Your task to perform on an android device: Go to sound settings Image 0: 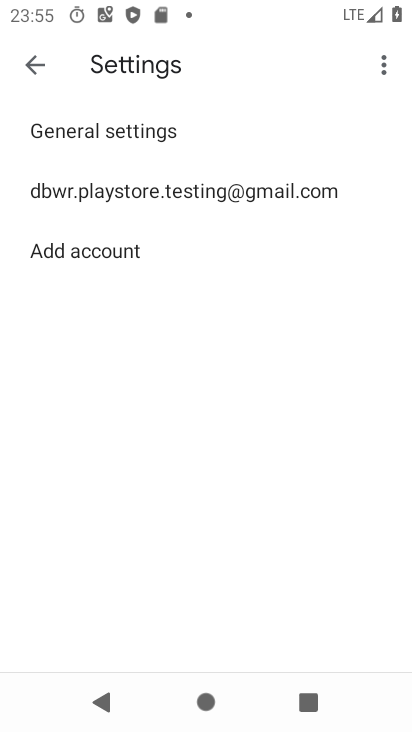
Step 0: press home button
Your task to perform on an android device: Go to sound settings Image 1: 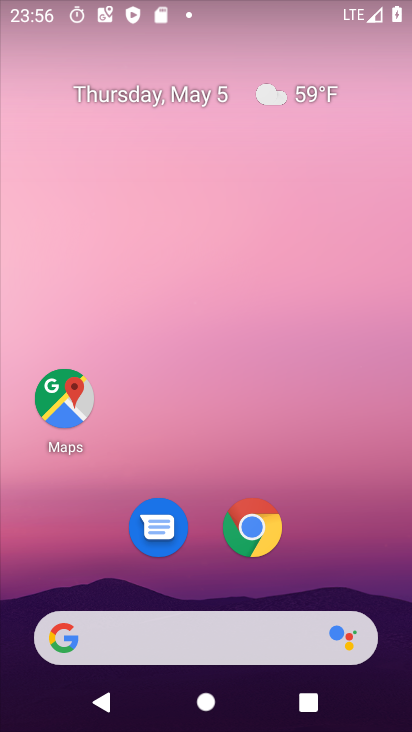
Step 1: drag from (225, 591) to (214, 0)
Your task to perform on an android device: Go to sound settings Image 2: 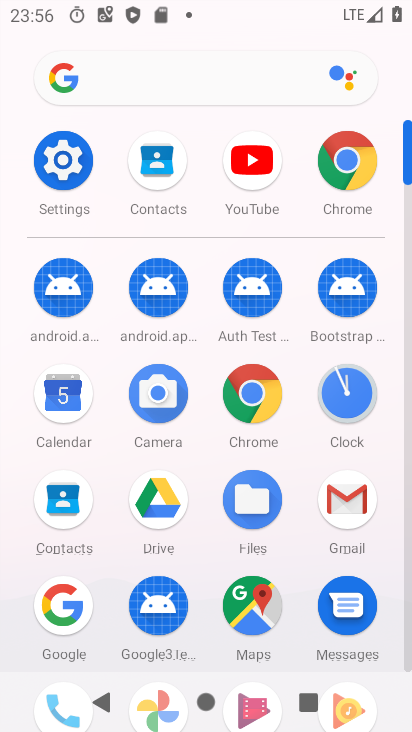
Step 2: click (66, 211)
Your task to perform on an android device: Go to sound settings Image 3: 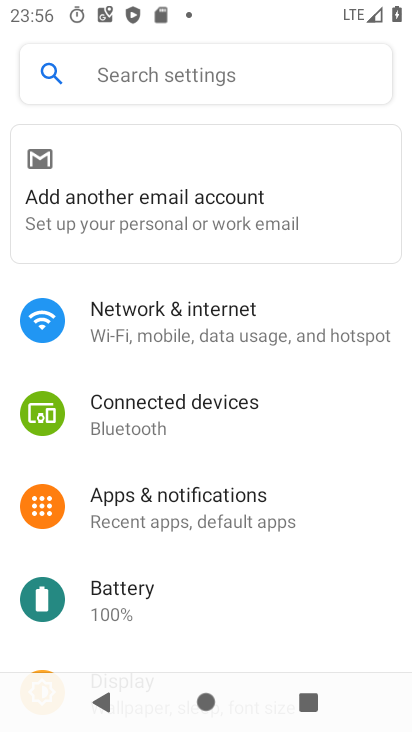
Step 3: drag from (204, 369) to (243, 216)
Your task to perform on an android device: Go to sound settings Image 4: 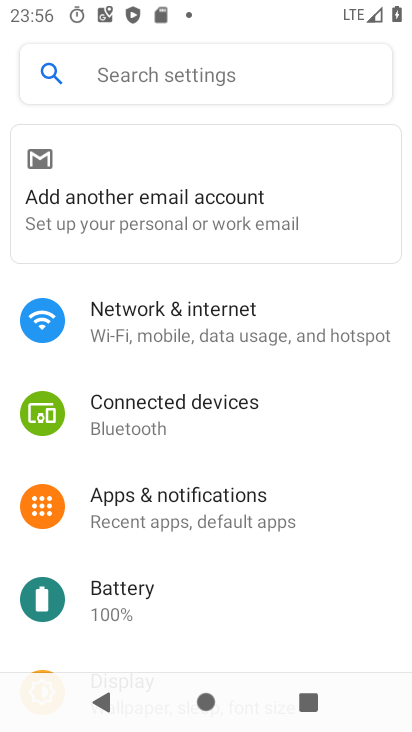
Step 4: drag from (186, 273) to (198, 201)
Your task to perform on an android device: Go to sound settings Image 5: 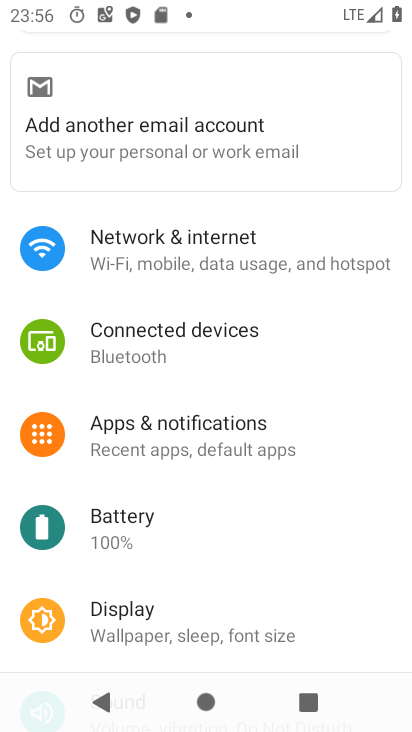
Step 5: drag from (130, 570) to (175, 253)
Your task to perform on an android device: Go to sound settings Image 6: 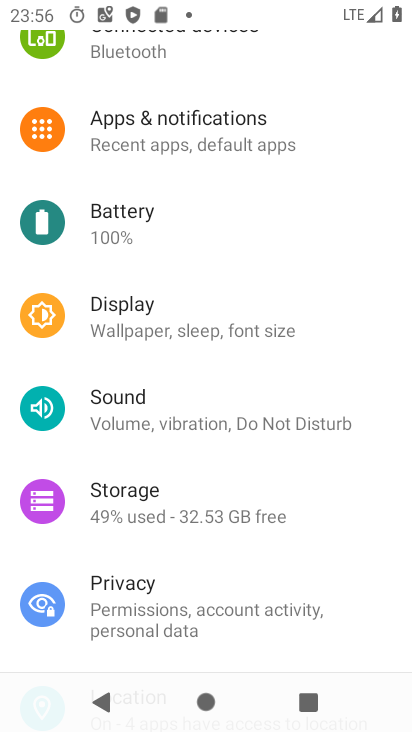
Step 6: click (163, 428)
Your task to perform on an android device: Go to sound settings Image 7: 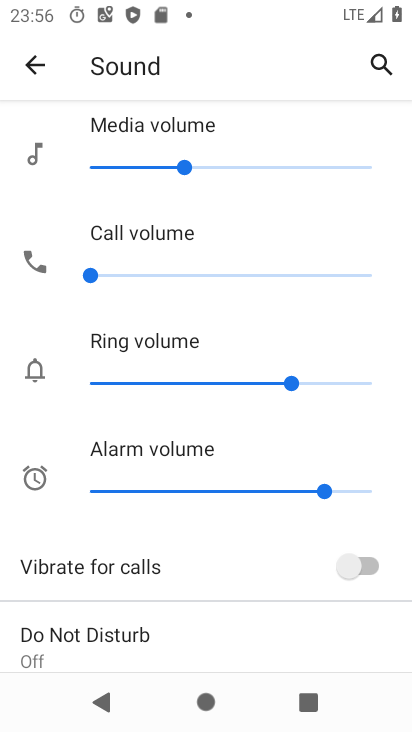
Step 7: task complete